Your task to perform on an android device: all mails in gmail Image 0: 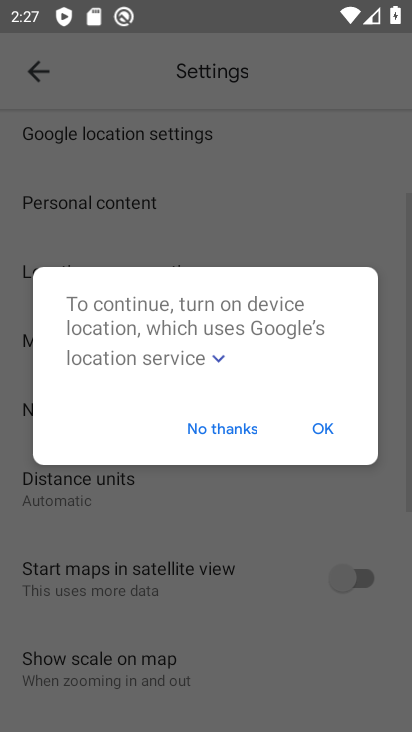
Step 0: press home button
Your task to perform on an android device: all mails in gmail Image 1: 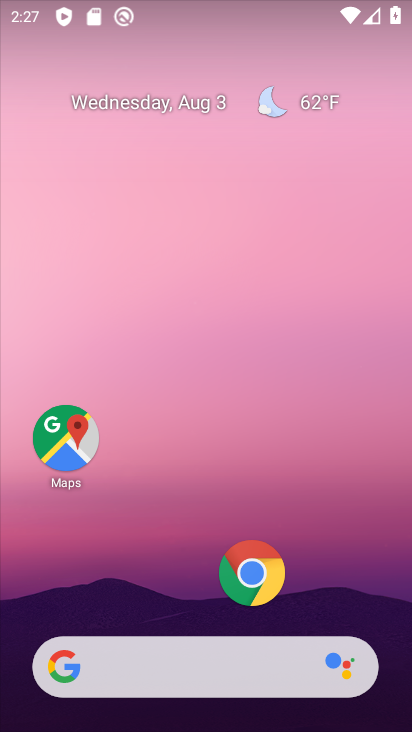
Step 1: drag from (158, 503) to (167, 17)
Your task to perform on an android device: all mails in gmail Image 2: 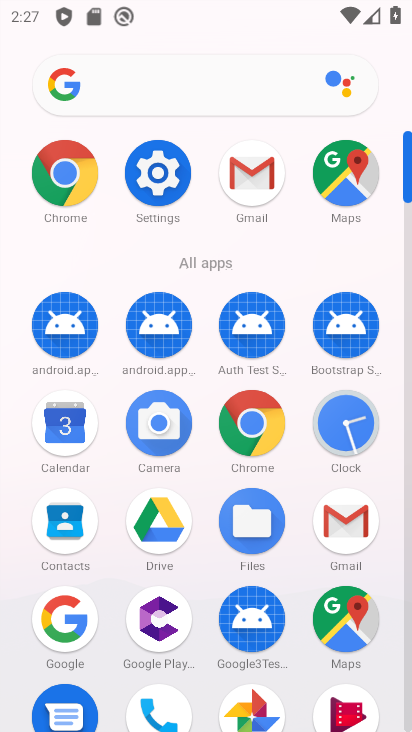
Step 2: click (352, 522)
Your task to perform on an android device: all mails in gmail Image 3: 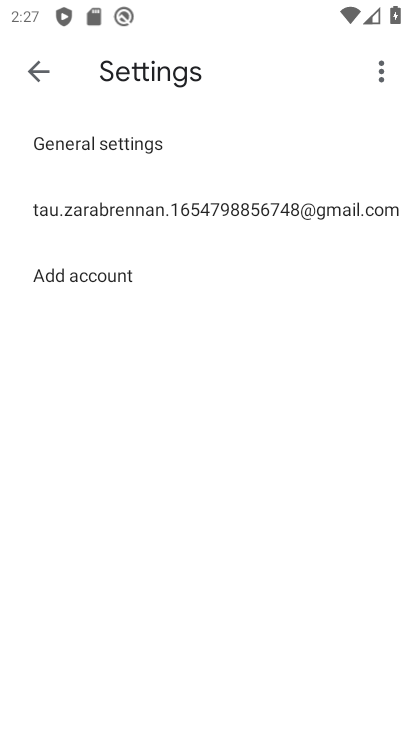
Step 3: click (39, 70)
Your task to perform on an android device: all mails in gmail Image 4: 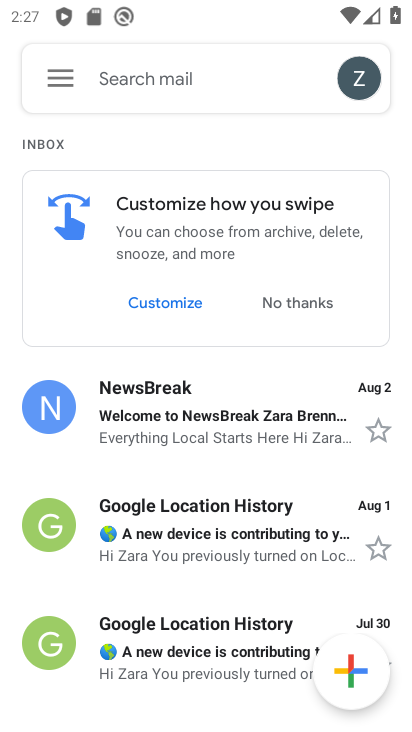
Step 4: click (51, 67)
Your task to perform on an android device: all mails in gmail Image 5: 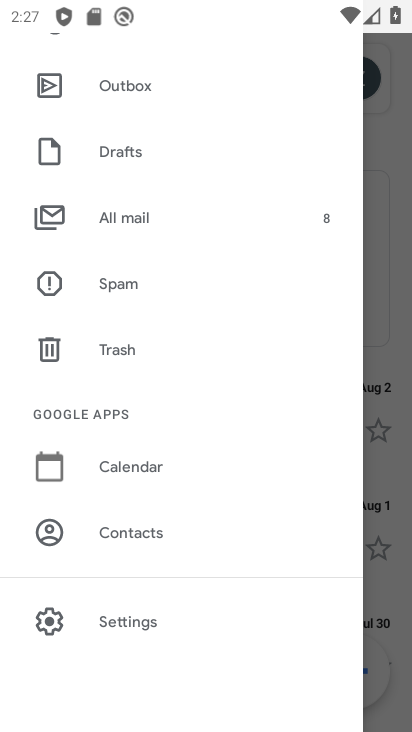
Step 5: click (145, 218)
Your task to perform on an android device: all mails in gmail Image 6: 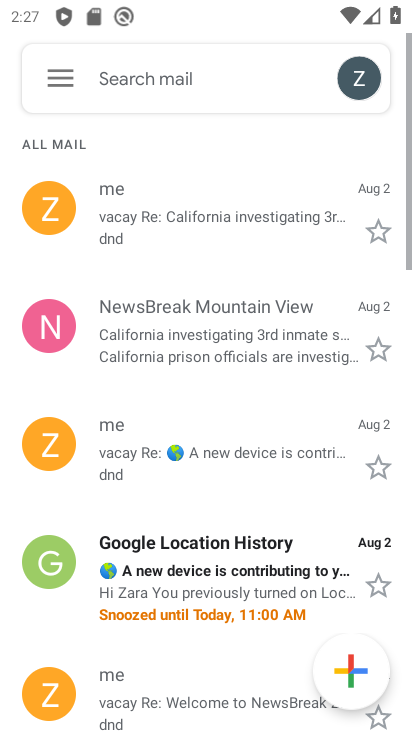
Step 6: task complete